Your task to perform on an android device: What's on my calendar tomorrow? Image 0: 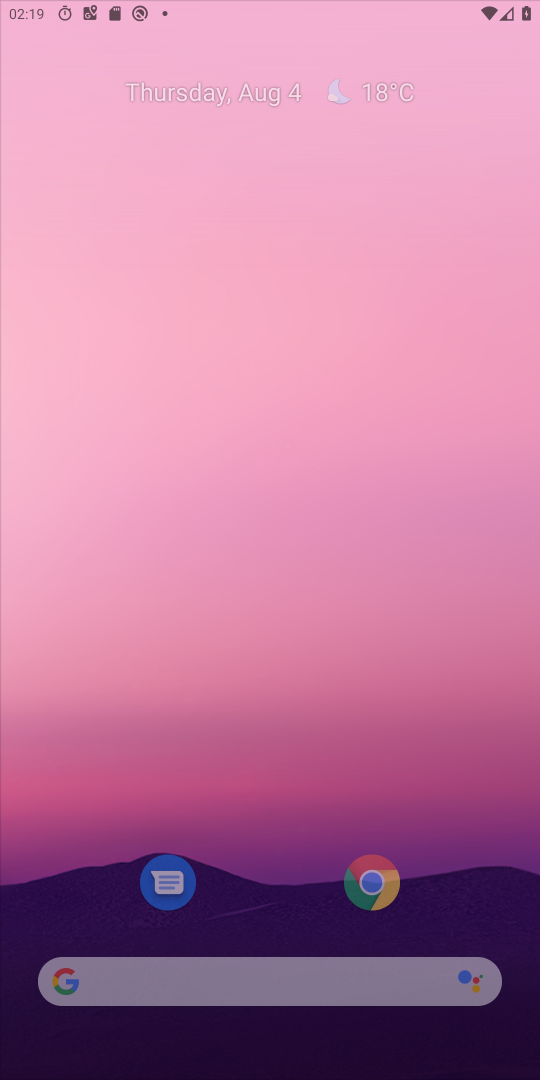
Step 0: press home button
Your task to perform on an android device: What's on my calendar tomorrow? Image 1: 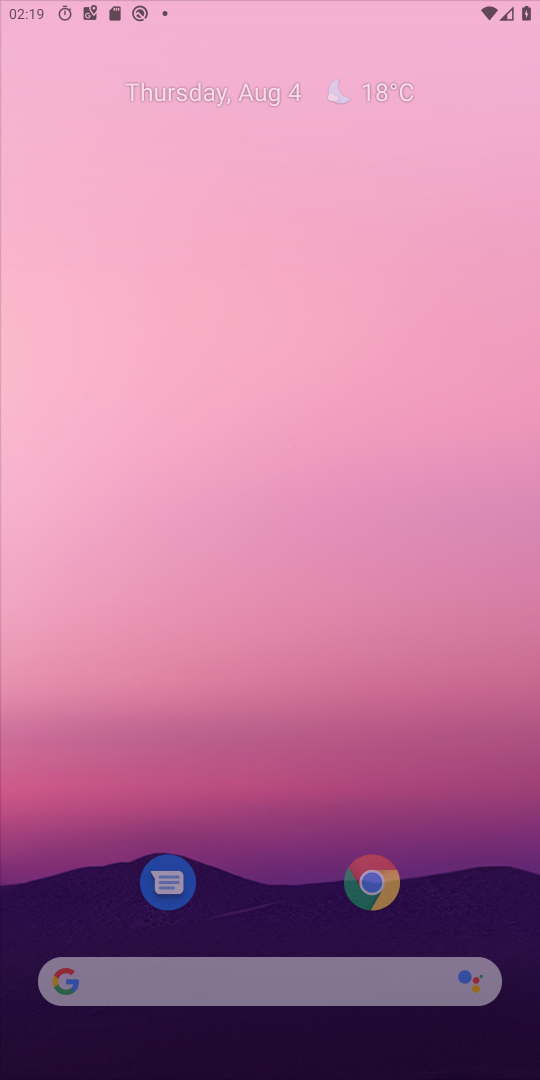
Step 1: click (176, 155)
Your task to perform on an android device: What's on my calendar tomorrow? Image 2: 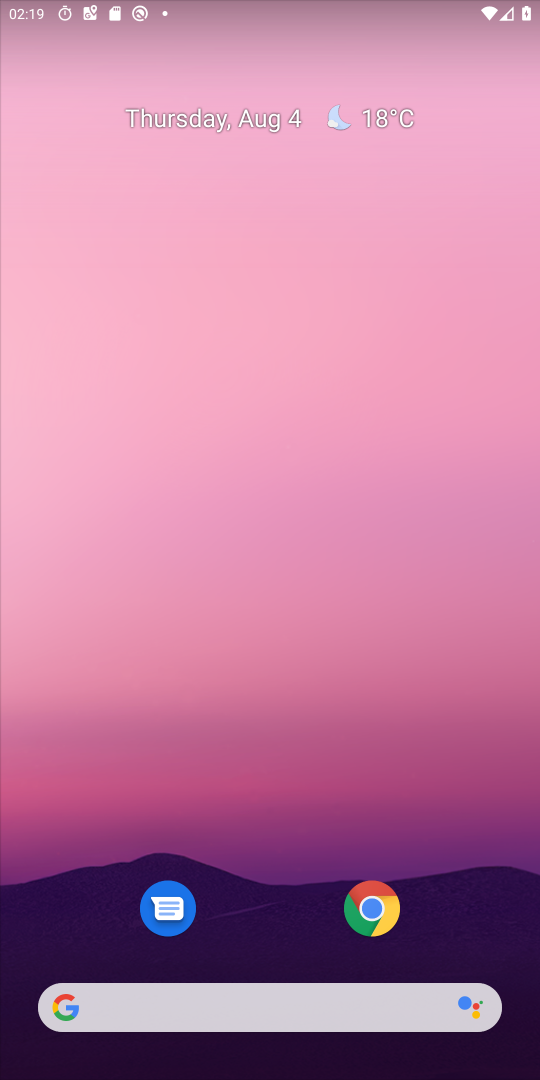
Step 2: press home button
Your task to perform on an android device: What's on my calendar tomorrow? Image 3: 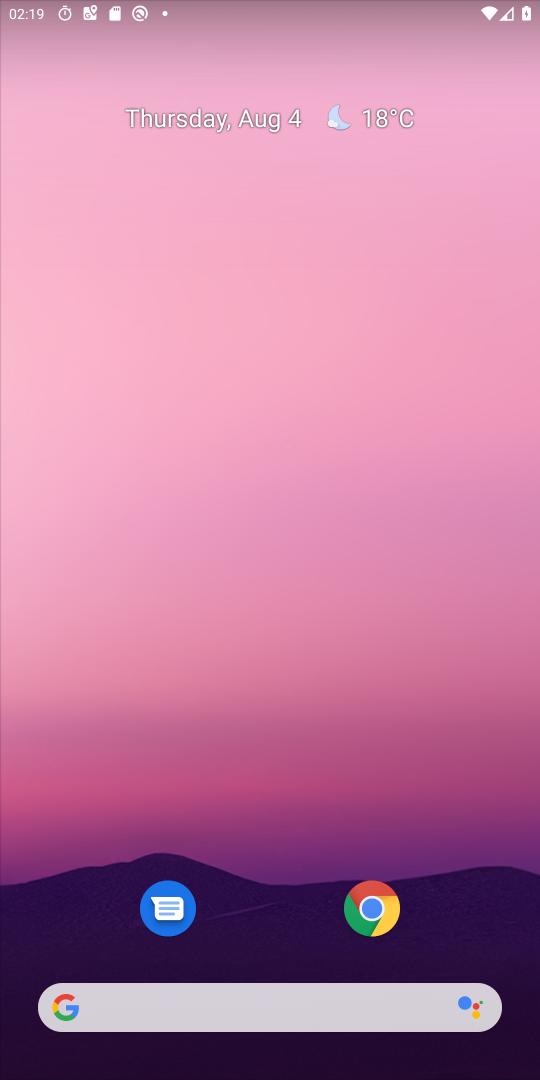
Step 3: drag from (342, 1062) to (238, 141)
Your task to perform on an android device: What's on my calendar tomorrow? Image 4: 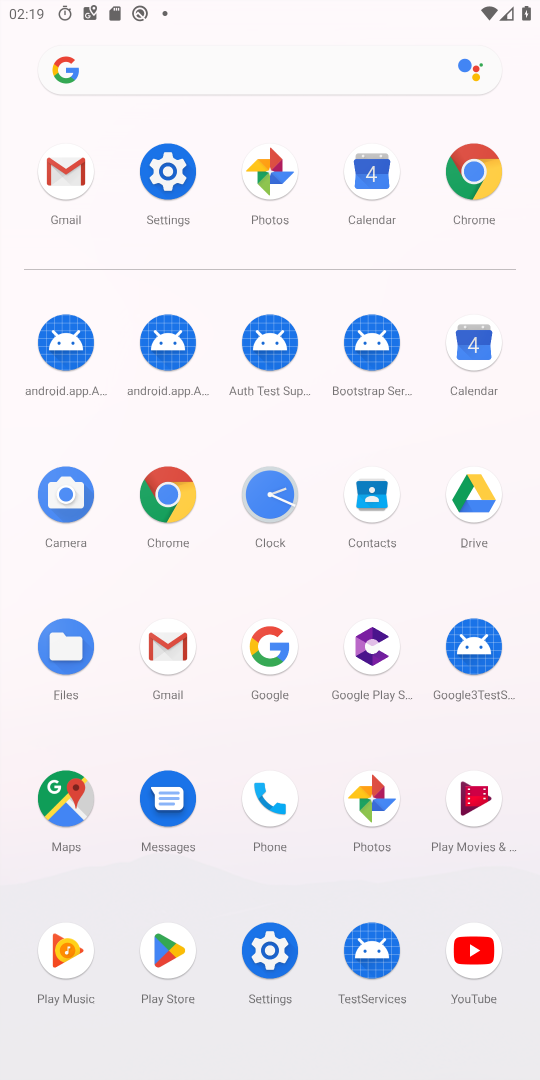
Step 4: click (469, 353)
Your task to perform on an android device: What's on my calendar tomorrow? Image 5: 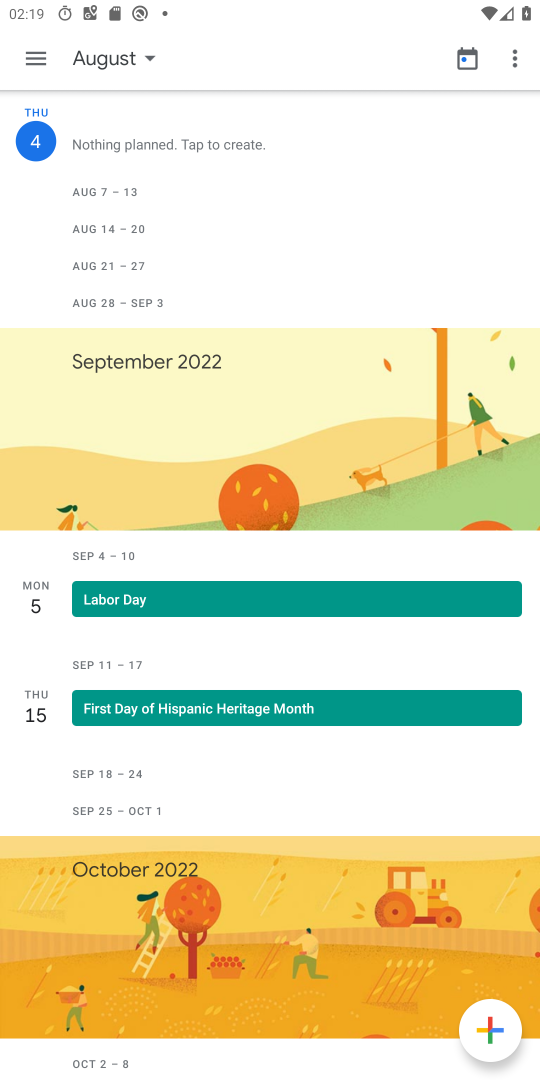
Step 5: click (47, 56)
Your task to perform on an android device: What's on my calendar tomorrow? Image 6: 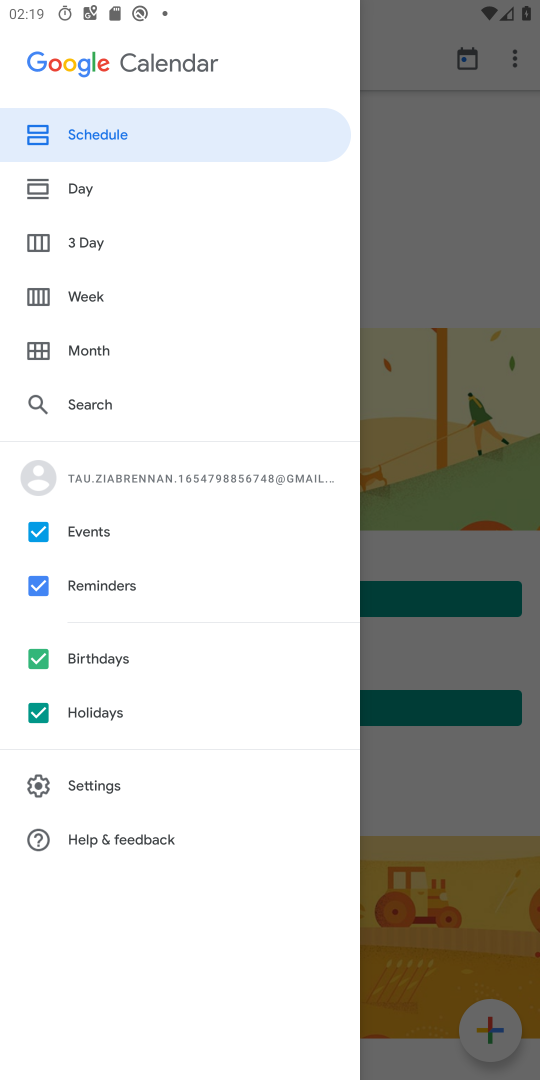
Step 6: click (104, 236)
Your task to perform on an android device: What's on my calendar tomorrow? Image 7: 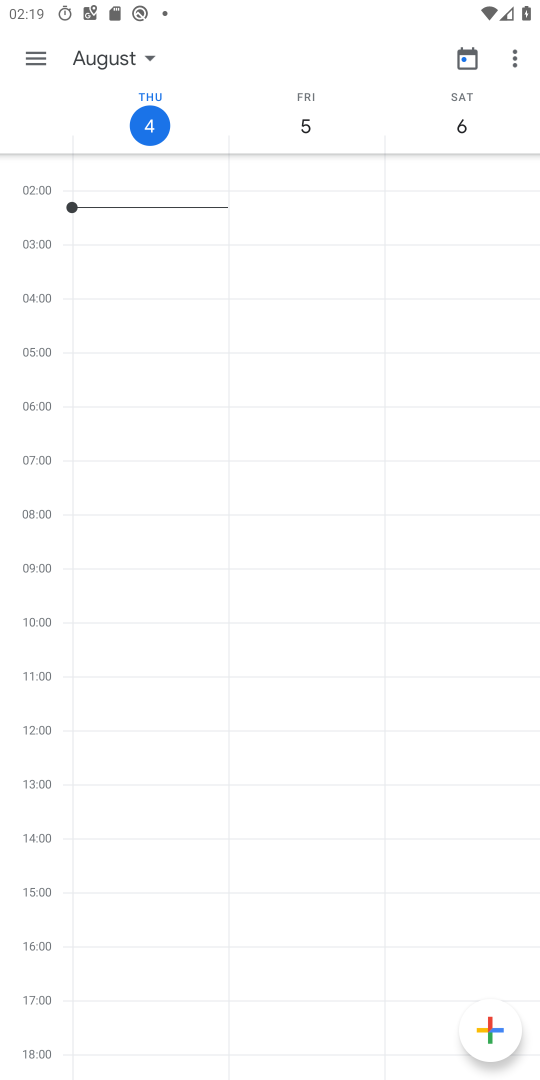
Step 7: click (305, 128)
Your task to perform on an android device: What's on my calendar tomorrow? Image 8: 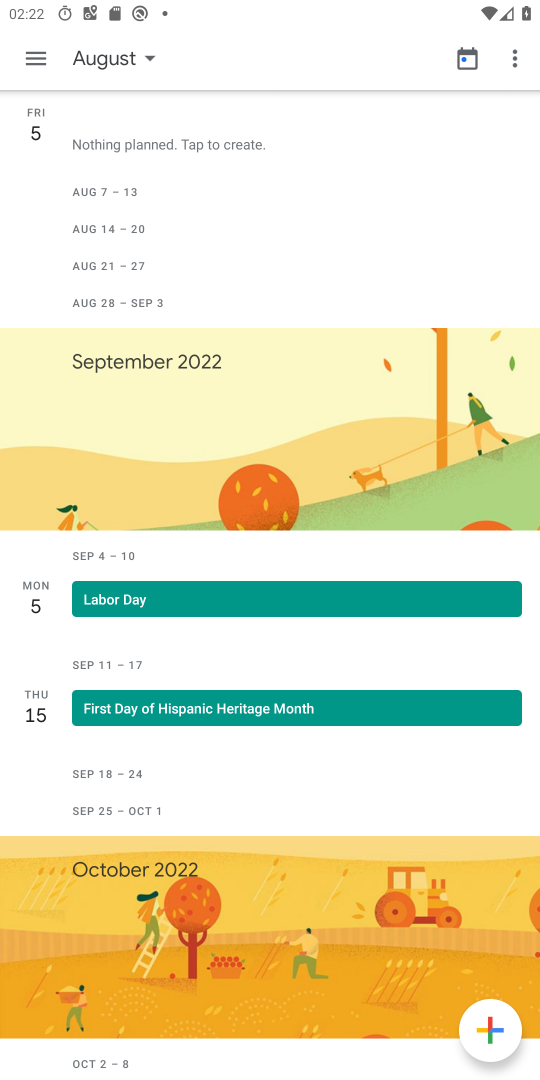
Step 8: task complete